Your task to perform on an android device: set an alarm Image 0: 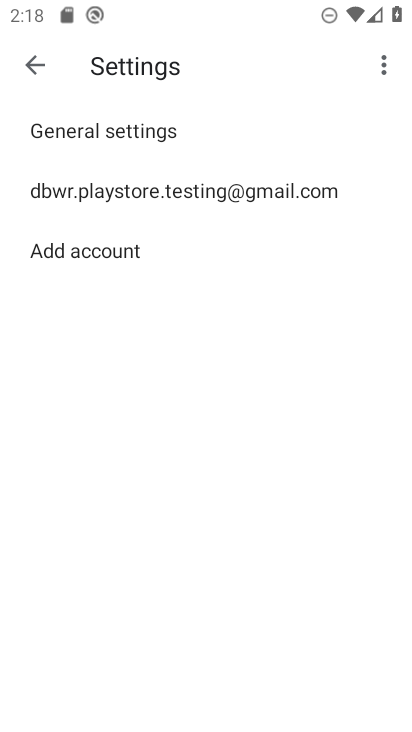
Step 0: press home button
Your task to perform on an android device: set an alarm Image 1: 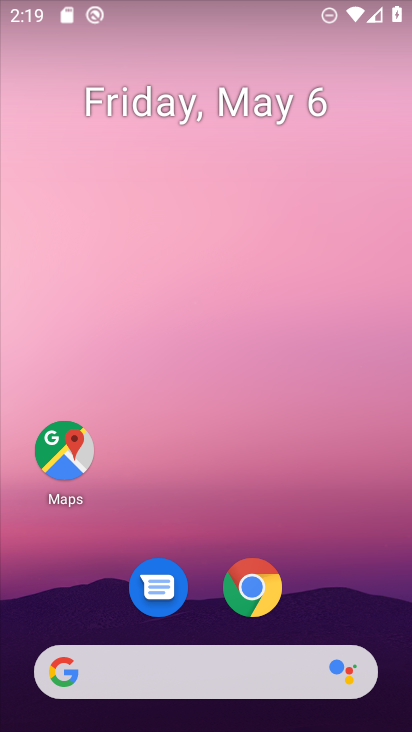
Step 1: drag from (256, 495) to (260, 19)
Your task to perform on an android device: set an alarm Image 2: 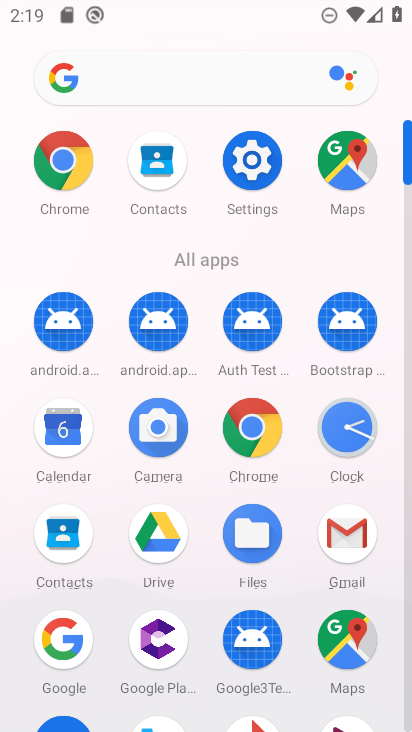
Step 2: click (334, 428)
Your task to perform on an android device: set an alarm Image 3: 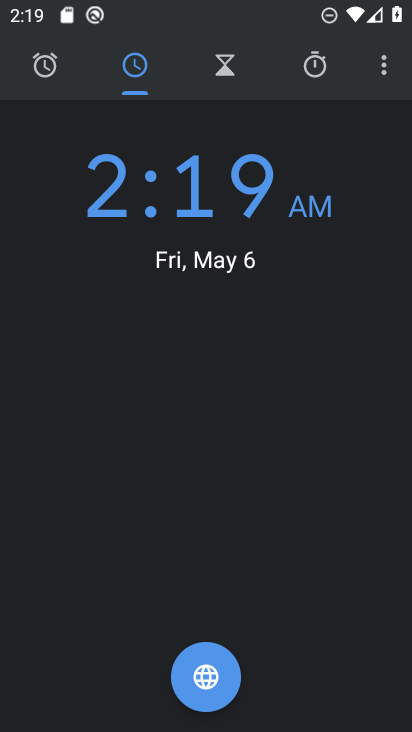
Step 3: click (48, 71)
Your task to perform on an android device: set an alarm Image 4: 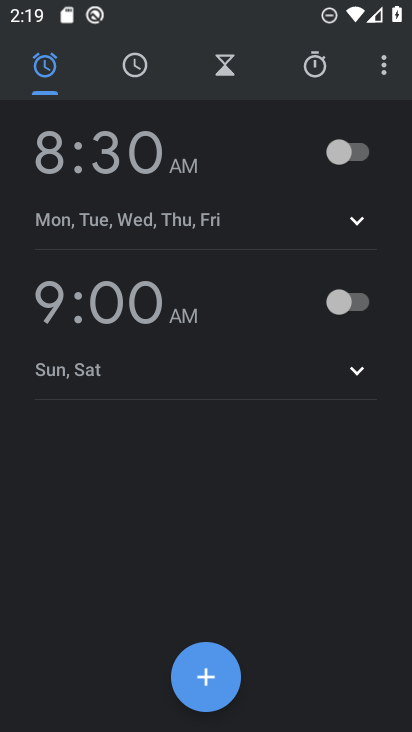
Step 4: click (211, 693)
Your task to perform on an android device: set an alarm Image 5: 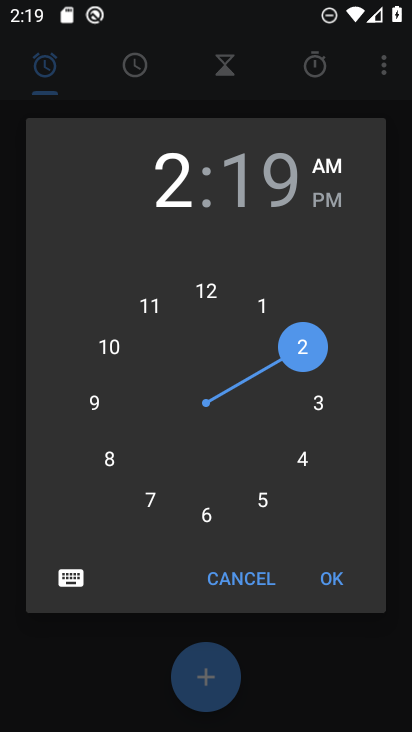
Step 5: click (256, 182)
Your task to perform on an android device: set an alarm Image 6: 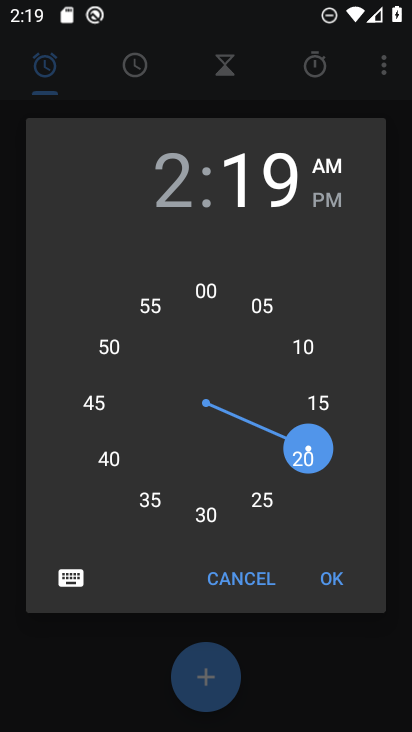
Step 6: click (202, 289)
Your task to perform on an android device: set an alarm Image 7: 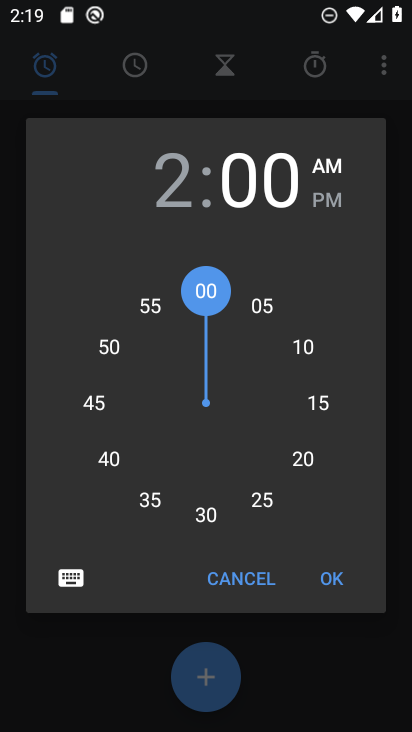
Step 7: click (322, 203)
Your task to perform on an android device: set an alarm Image 8: 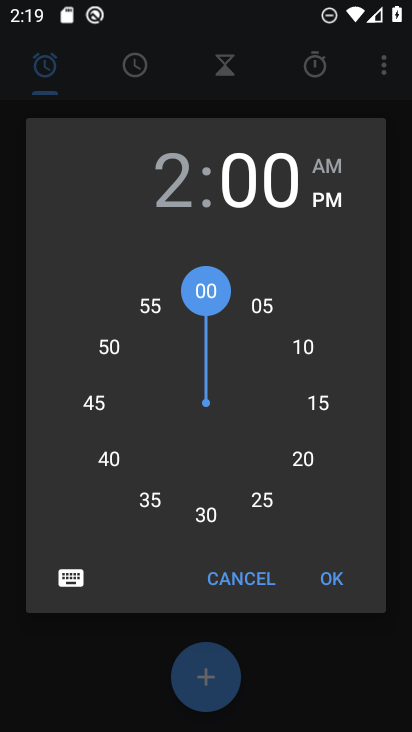
Step 8: click (328, 578)
Your task to perform on an android device: set an alarm Image 9: 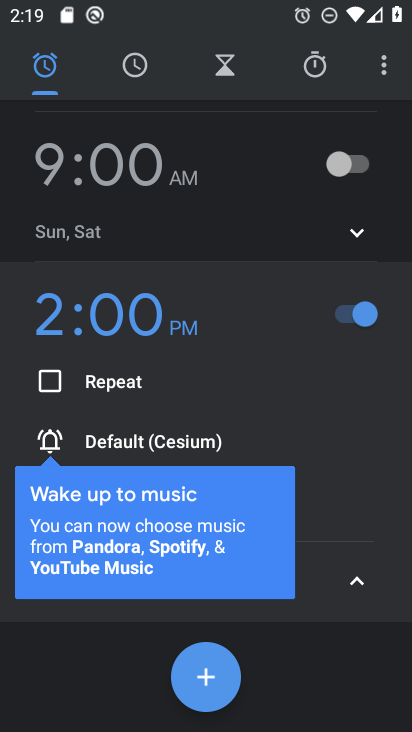
Step 9: task complete